Your task to perform on an android device: Turn on the flashlight Image 0: 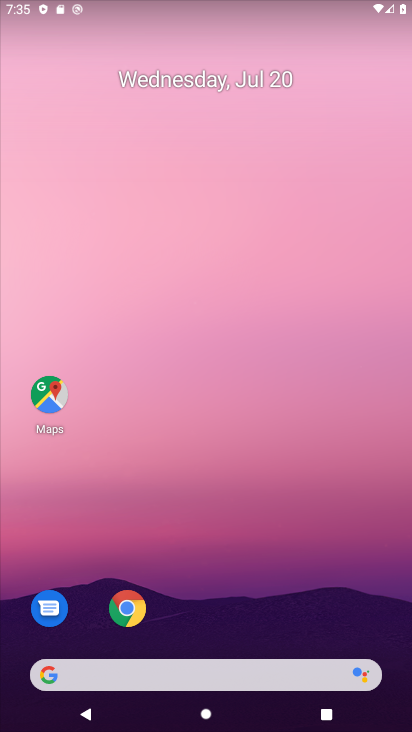
Step 0: drag from (235, 634) to (227, 55)
Your task to perform on an android device: Turn on the flashlight Image 1: 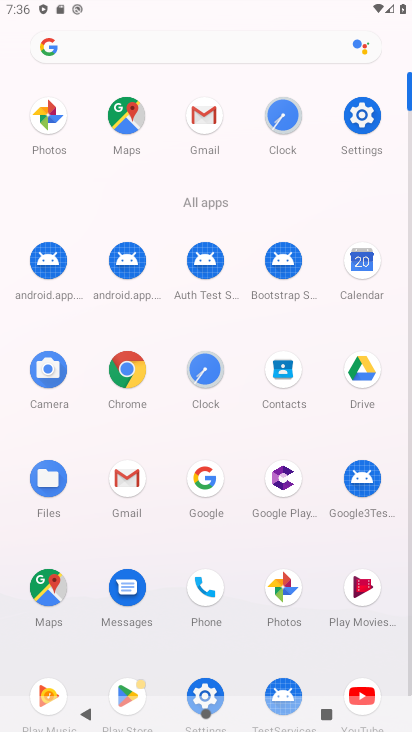
Step 1: click (357, 128)
Your task to perform on an android device: Turn on the flashlight Image 2: 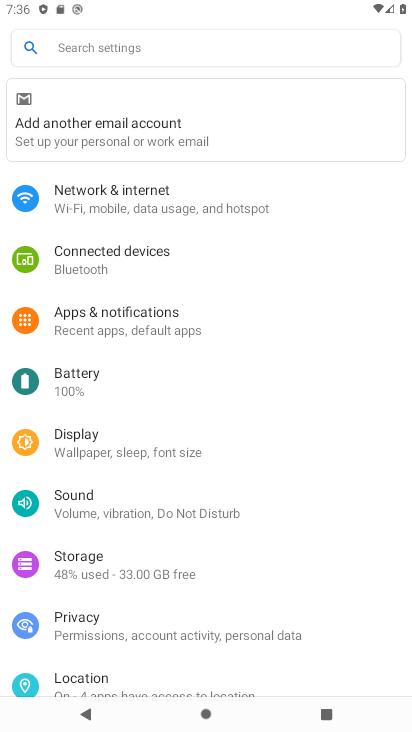
Step 2: click (272, 38)
Your task to perform on an android device: Turn on the flashlight Image 3: 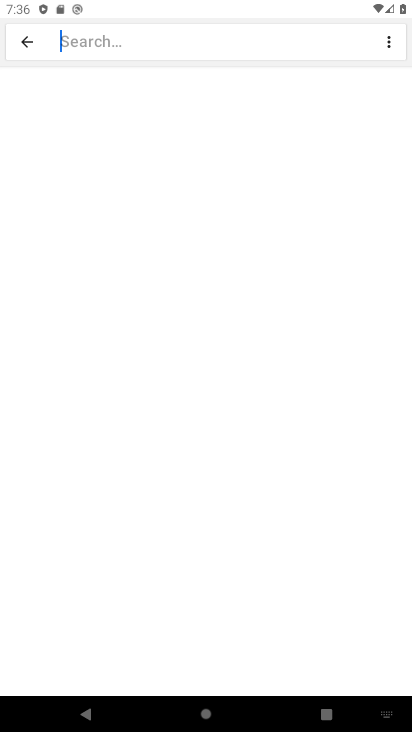
Step 3: type ""
Your task to perform on an android device: Turn on the flashlight Image 4: 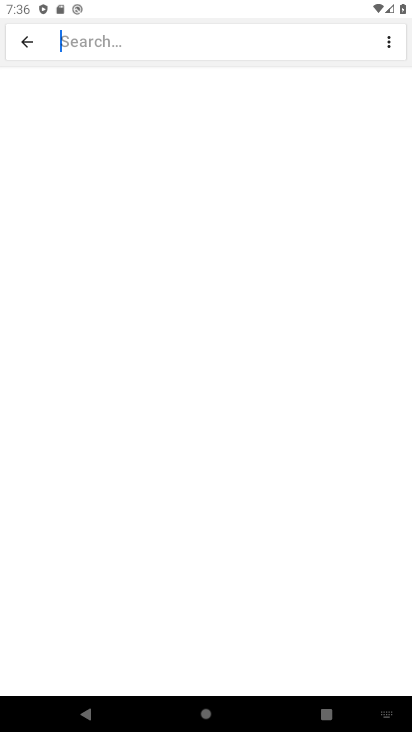
Step 4: type "flashlight"
Your task to perform on an android device: Turn on the flashlight Image 5: 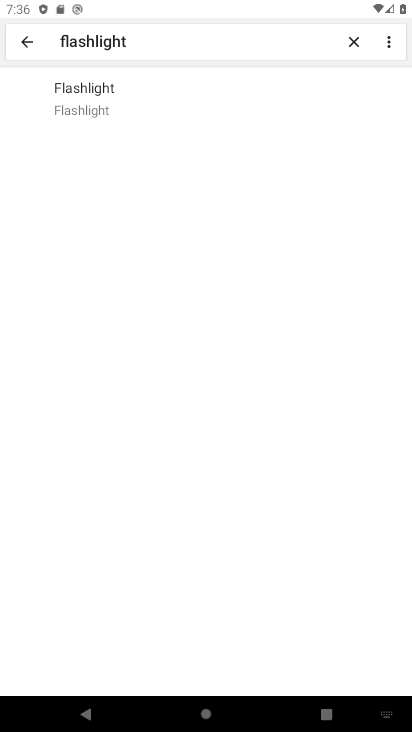
Step 5: click (144, 89)
Your task to perform on an android device: Turn on the flashlight Image 6: 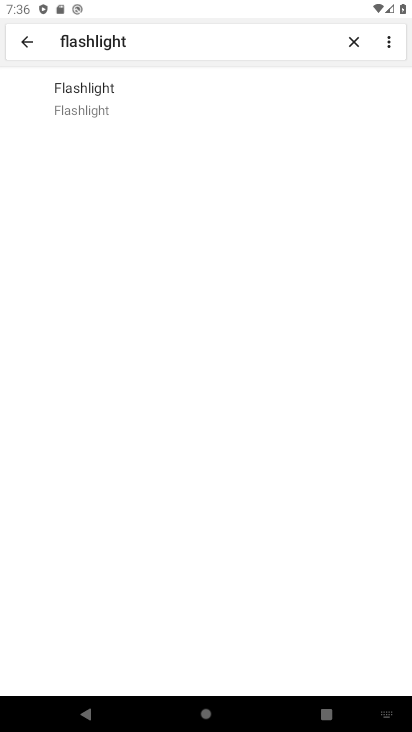
Step 6: task complete